Your task to perform on an android device: check storage Image 0: 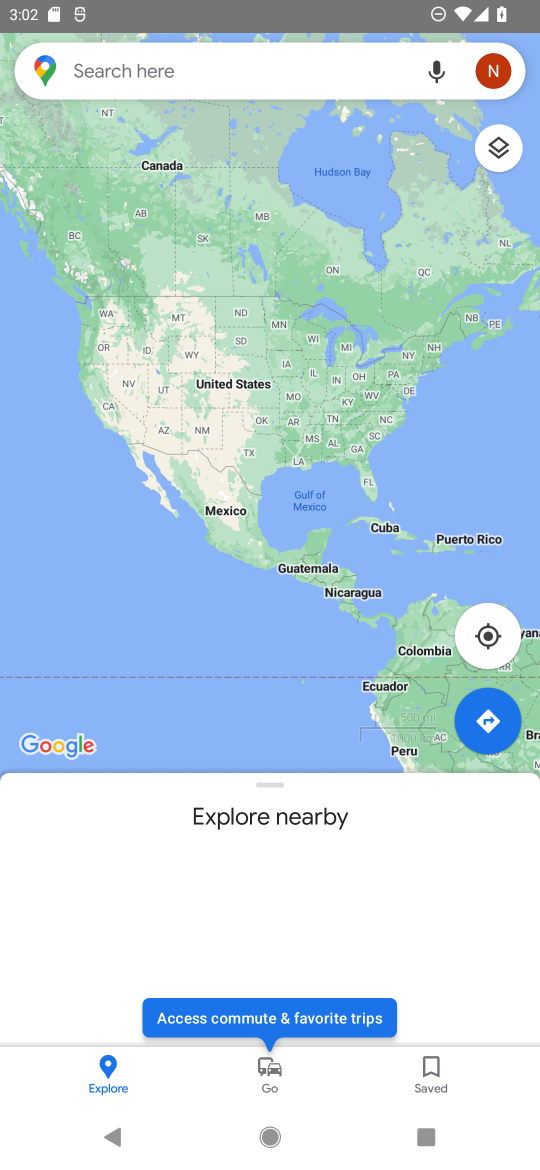
Step 0: press home button
Your task to perform on an android device: check storage Image 1: 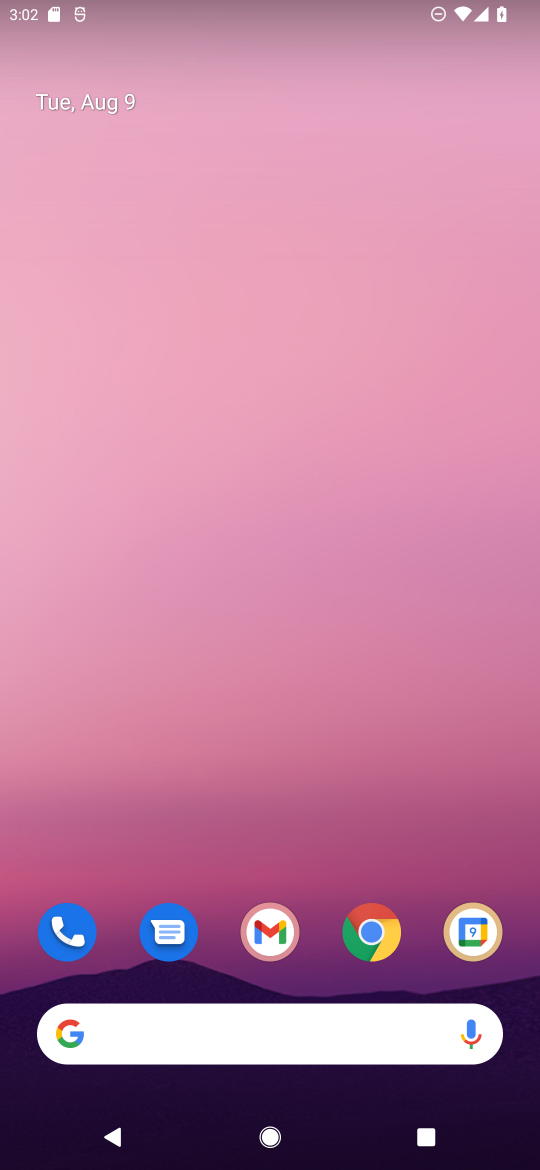
Step 1: drag from (48, 1129) to (279, 403)
Your task to perform on an android device: check storage Image 2: 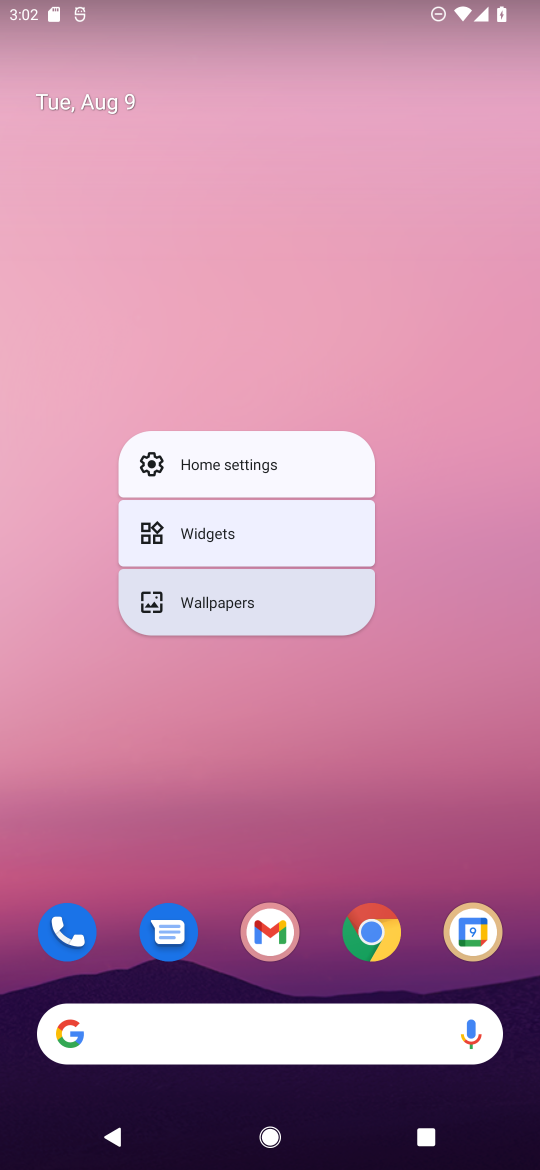
Step 2: drag from (28, 1095) to (348, 304)
Your task to perform on an android device: check storage Image 3: 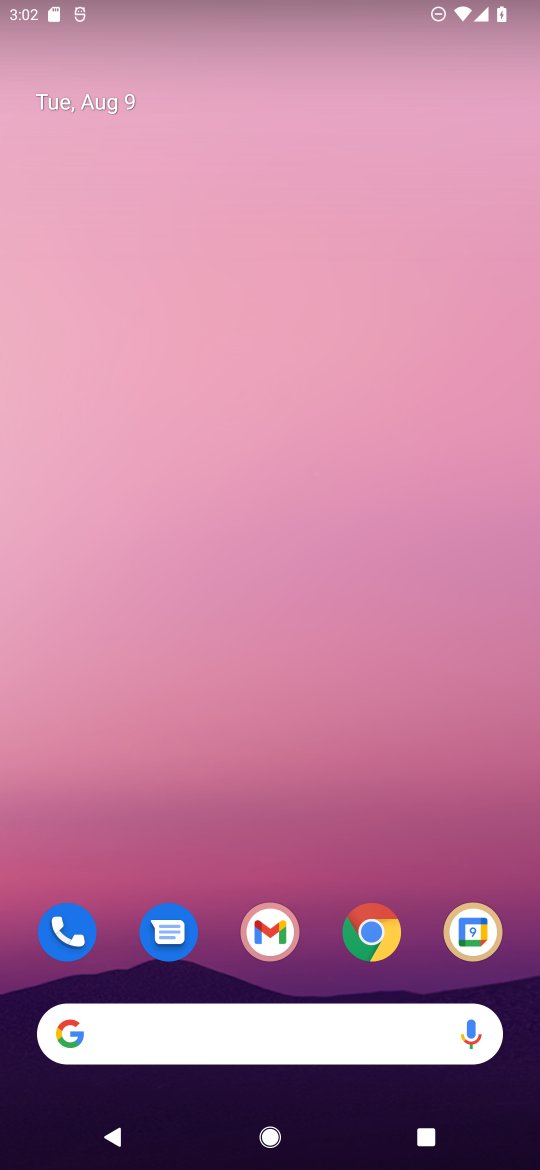
Step 3: drag from (40, 1089) to (384, 237)
Your task to perform on an android device: check storage Image 4: 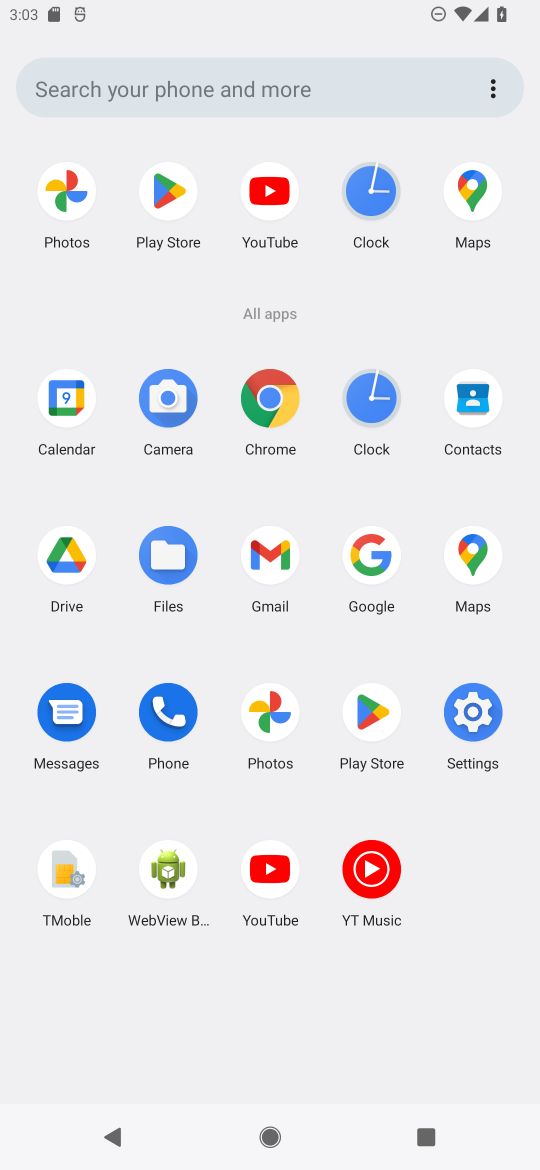
Step 4: click (486, 721)
Your task to perform on an android device: check storage Image 5: 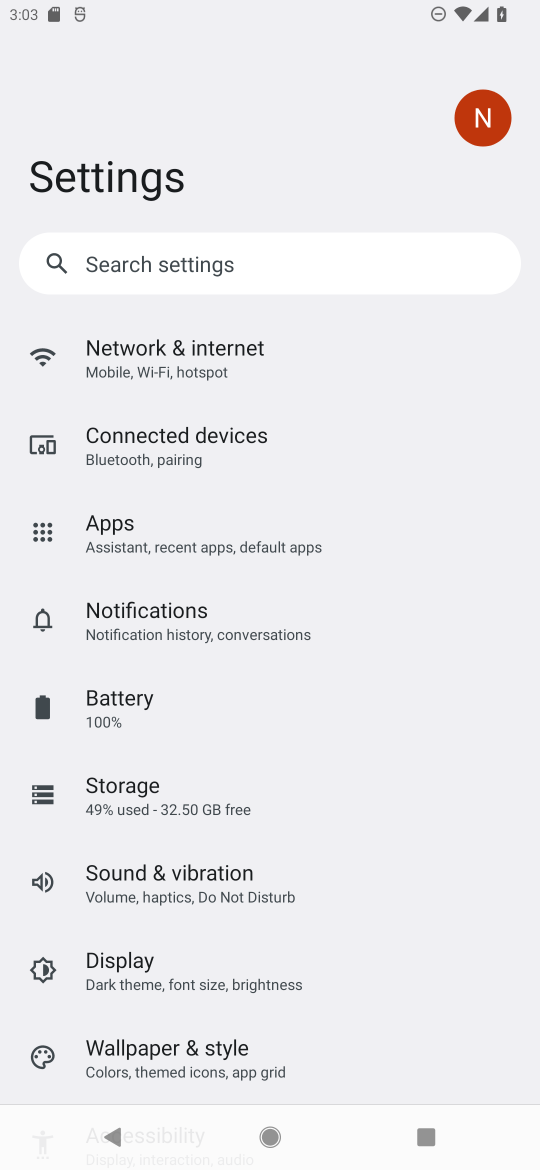
Step 5: click (119, 790)
Your task to perform on an android device: check storage Image 6: 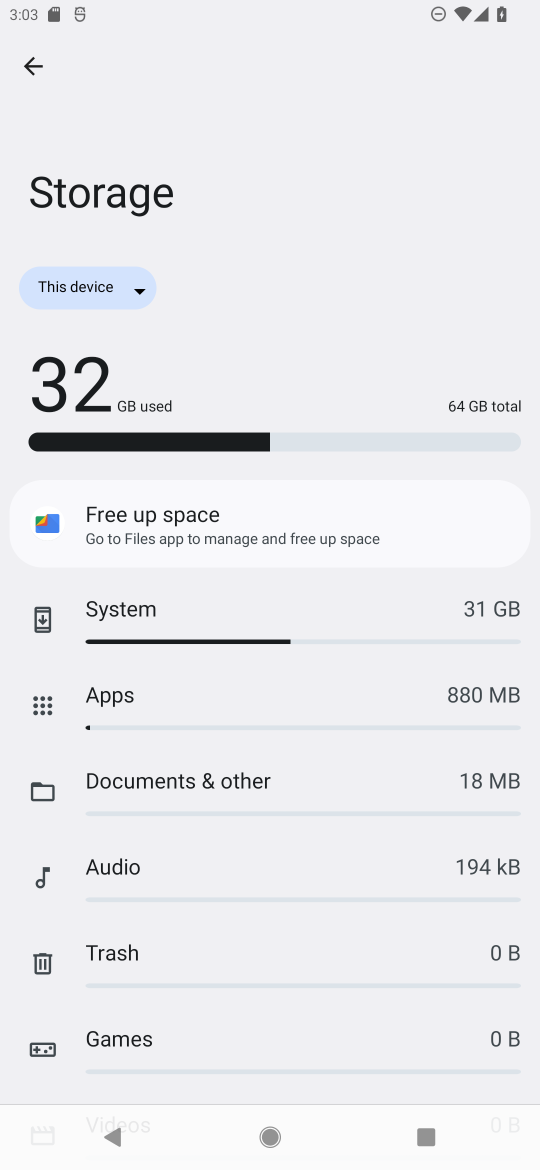
Step 6: task complete